Your task to perform on an android device: Go to accessibility settings Image 0: 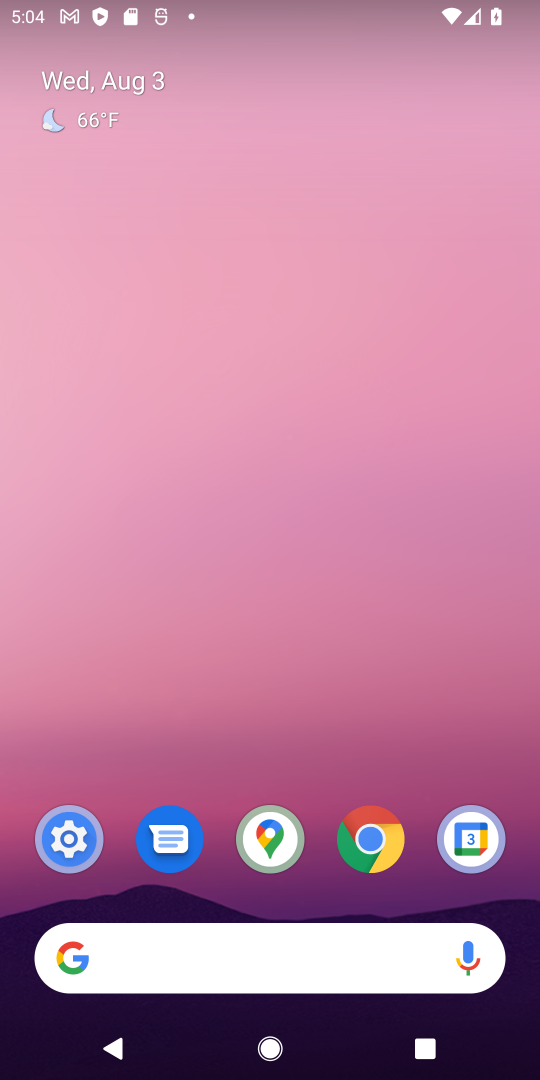
Step 0: click (61, 839)
Your task to perform on an android device: Go to accessibility settings Image 1: 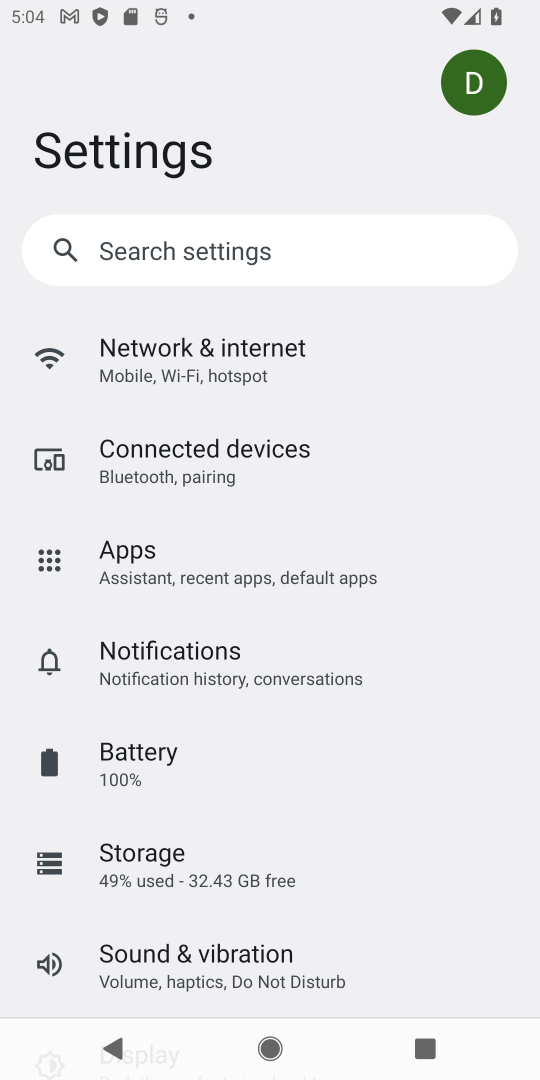
Step 1: drag from (199, 863) to (269, 253)
Your task to perform on an android device: Go to accessibility settings Image 2: 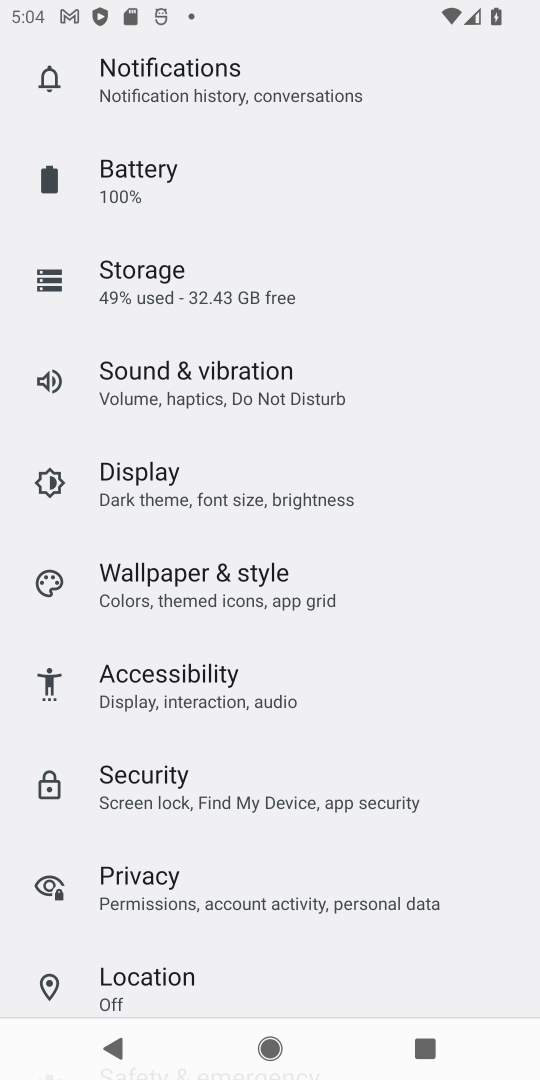
Step 2: click (159, 682)
Your task to perform on an android device: Go to accessibility settings Image 3: 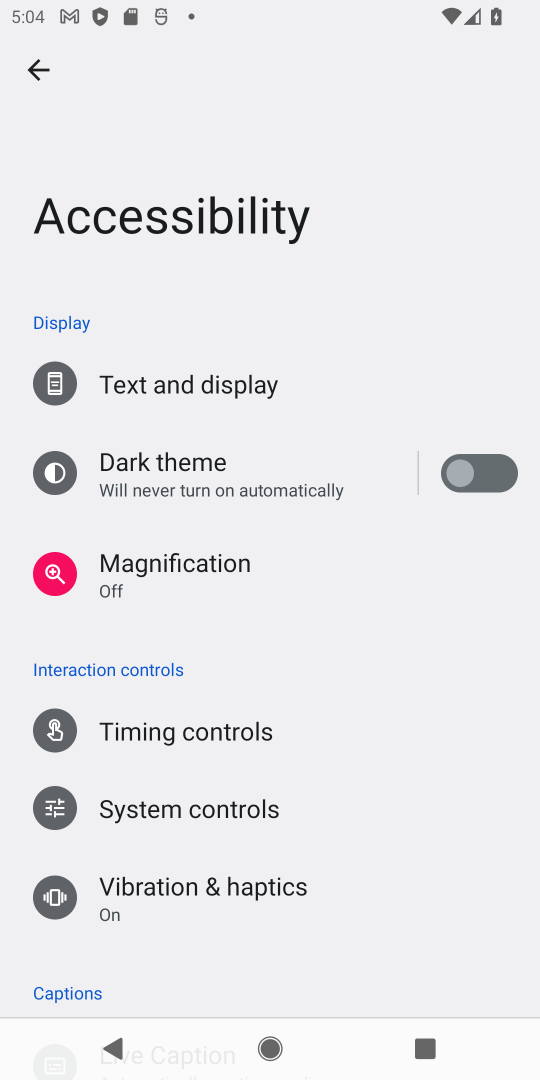
Step 3: task complete